Your task to perform on an android device: Go to Google maps Image 0: 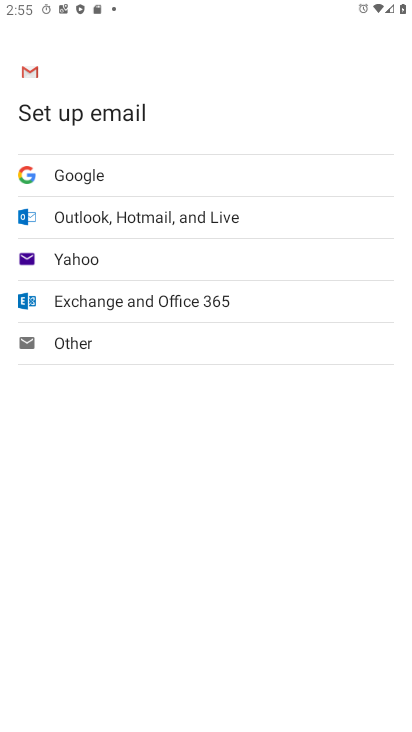
Step 0: press home button
Your task to perform on an android device: Go to Google maps Image 1: 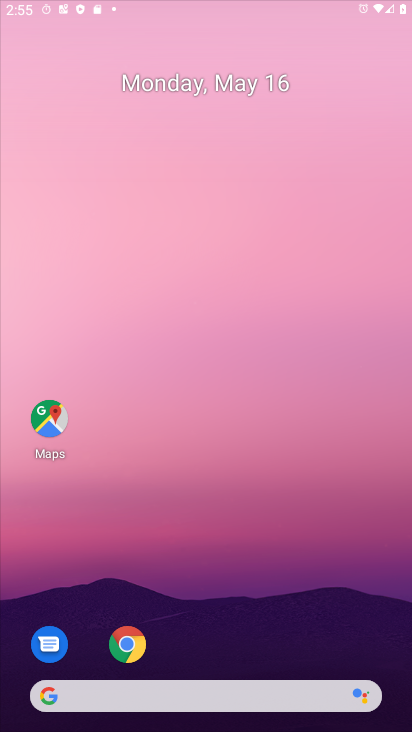
Step 1: drag from (216, 645) to (213, 218)
Your task to perform on an android device: Go to Google maps Image 2: 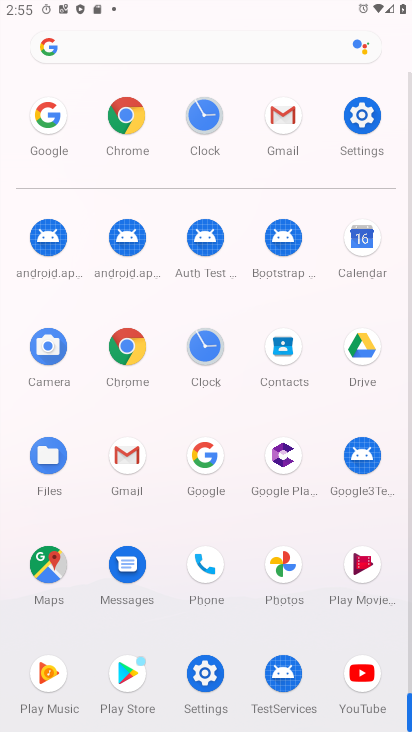
Step 2: click (53, 579)
Your task to perform on an android device: Go to Google maps Image 3: 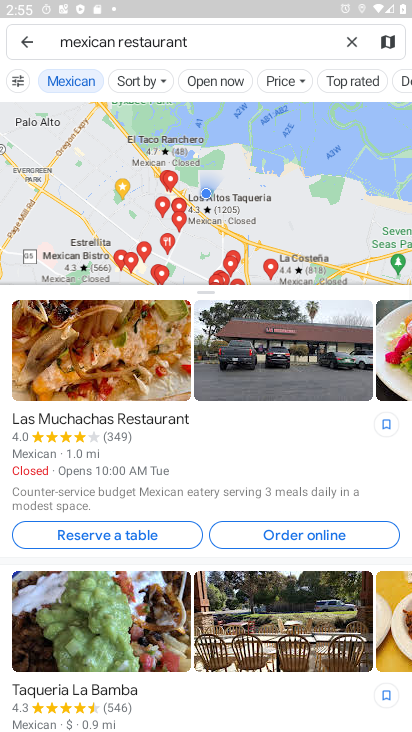
Step 3: task complete